Your task to perform on an android device: turn on wifi Image 0: 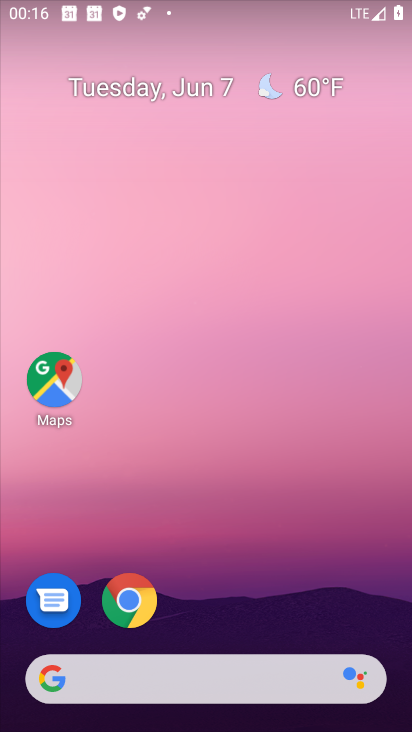
Step 0: drag from (229, 729) to (221, 129)
Your task to perform on an android device: turn on wifi Image 1: 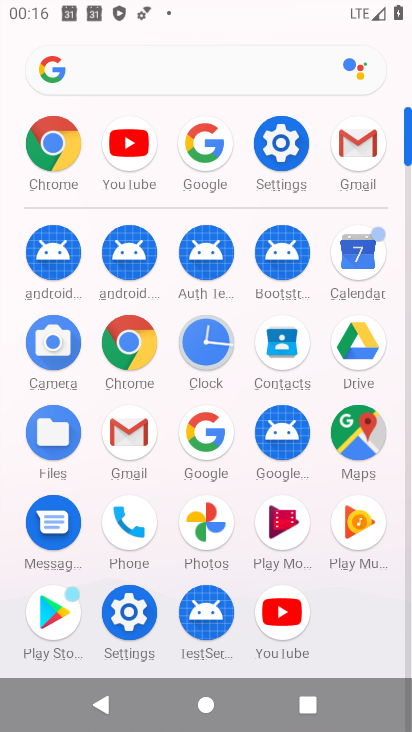
Step 1: click (278, 147)
Your task to perform on an android device: turn on wifi Image 2: 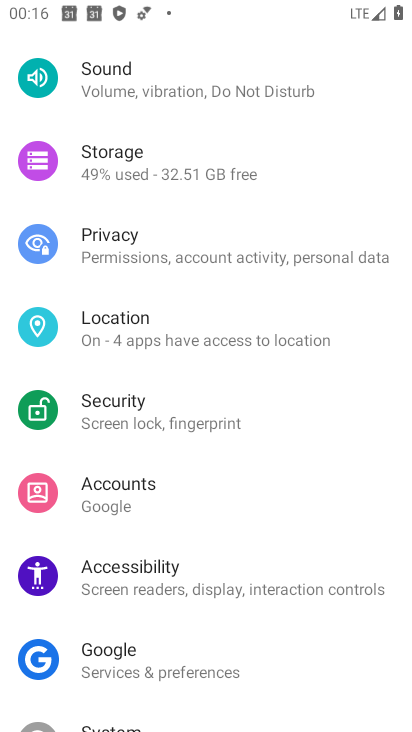
Step 2: drag from (166, 130) to (230, 615)
Your task to perform on an android device: turn on wifi Image 3: 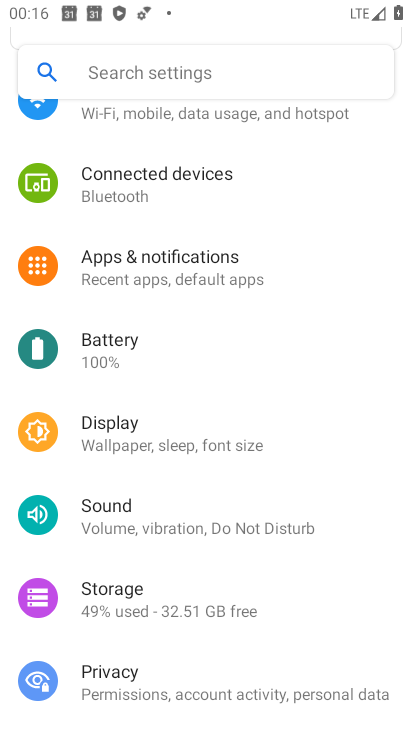
Step 3: drag from (214, 140) to (225, 576)
Your task to perform on an android device: turn on wifi Image 4: 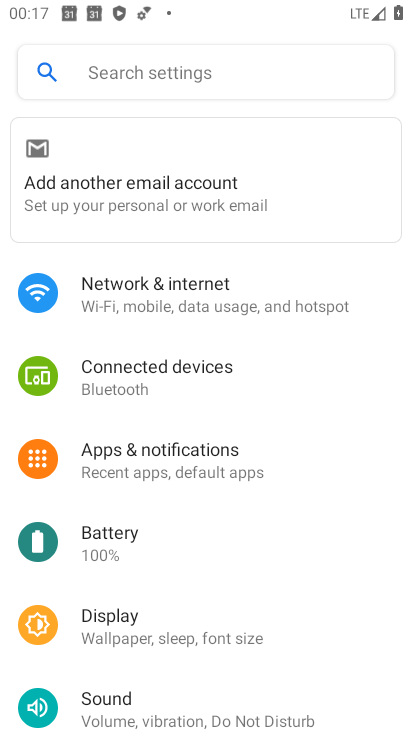
Step 4: click (142, 304)
Your task to perform on an android device: turn on wifi Image 5: 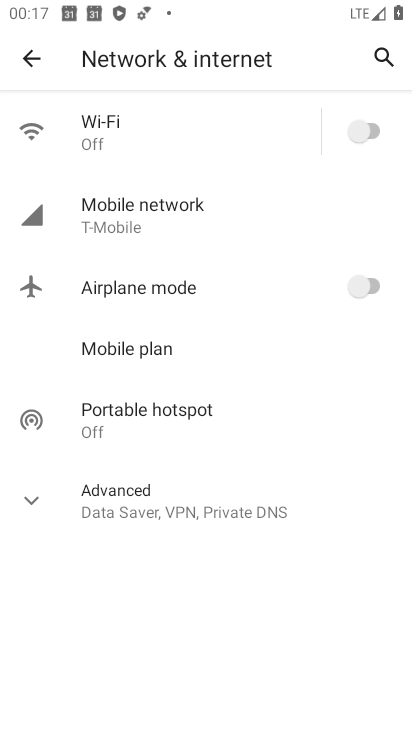
Step 5: click (370, 129)
Your task to perform on an android device: turn on wifi Image 6: 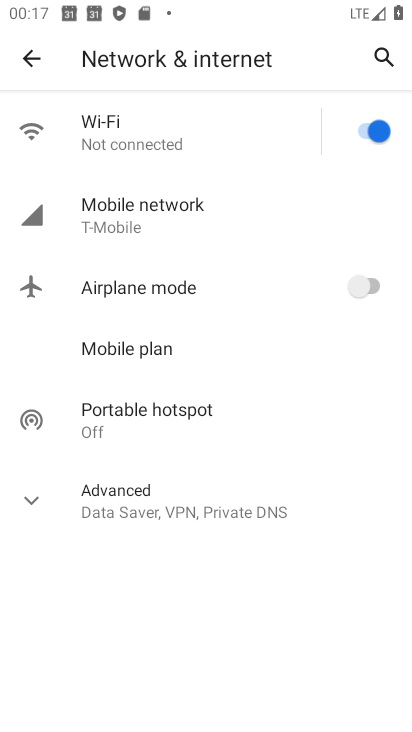
Step 6: task complete